Your task to perform on an android device: turn off notifications settings in the gmail app Image 0: 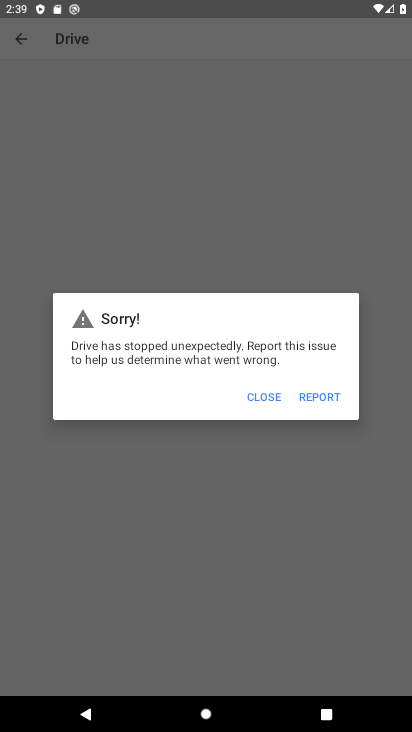
Step 0: press home button
Your task to perform on an android device: turn off notifications settings in the gmail app Image 1: 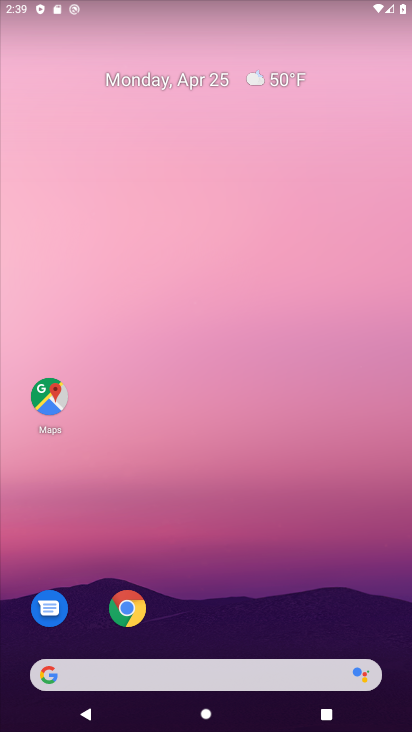
Step 1: drag from (206, 523) to (245, 203)
Your task to perform on an android device: turn off notifications settings in the gmail app Image 2: 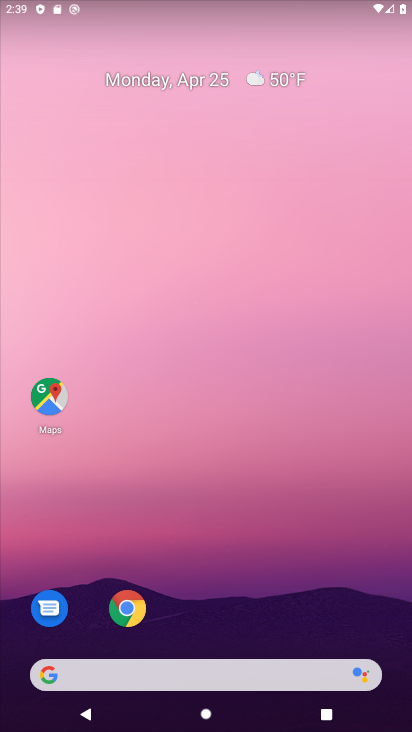
Step 2: drag from (190, 638) to (213, 159)
Your task to perform on an android device: turn off notifications settings in the gmail app Image 3: 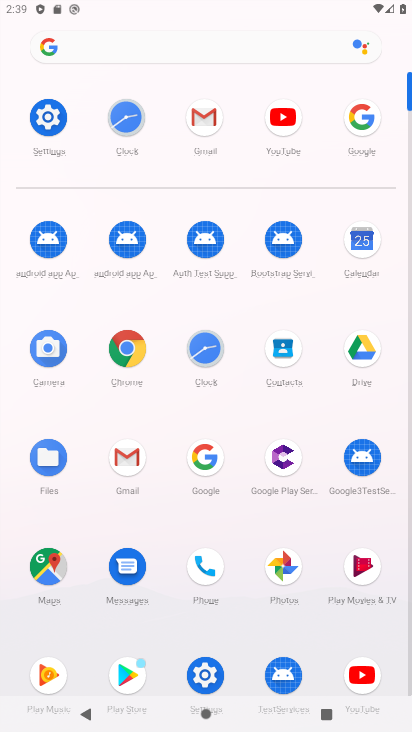
Step 3: click (217, 123)
Your task to perform on an android device: turn off notifications settings in the gmail app Image 4: 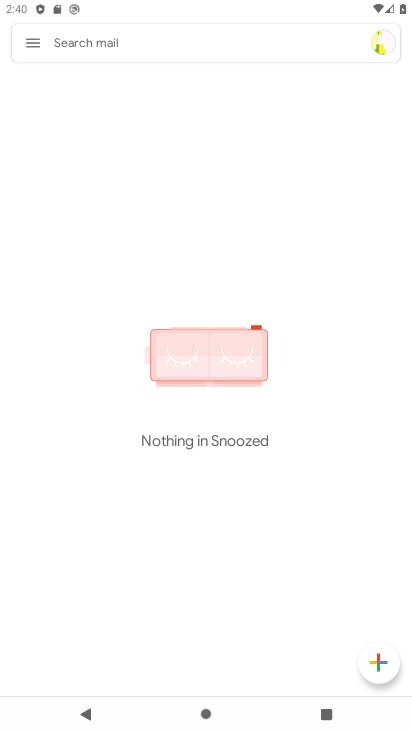
Step 4: click (27, 42)
Your task to perform on an android device: turn off notifications settings in the gmail app Image 5: 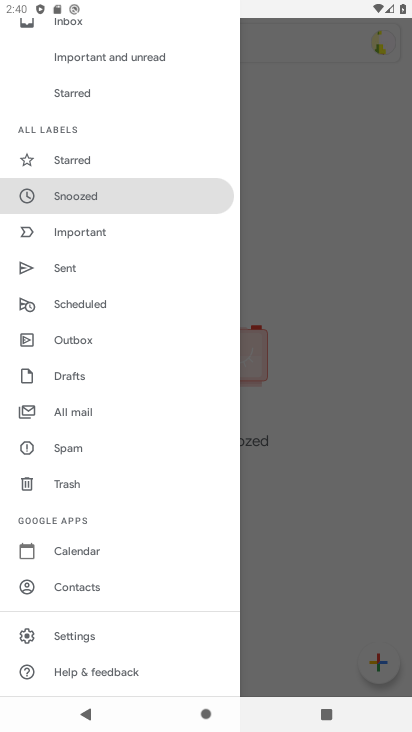
Step 5: click (105, 635)
Your task to perform on an android device: turn off notifications settings in the gmail app Image 6: 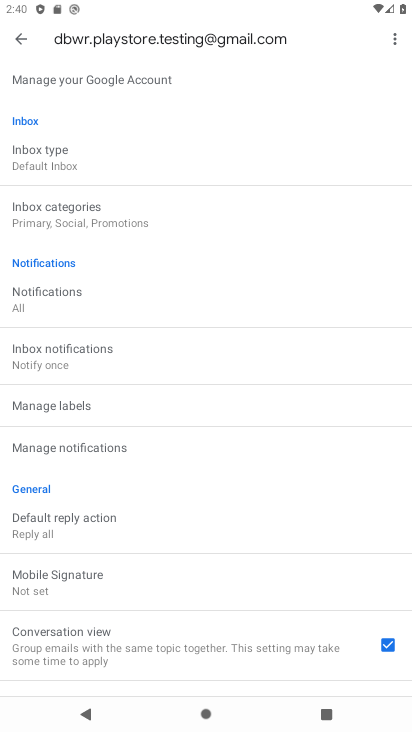
Step 6: click (79, 450)
Your task to perform on an android device: turn off notifications settings in the gmail app Image 7: 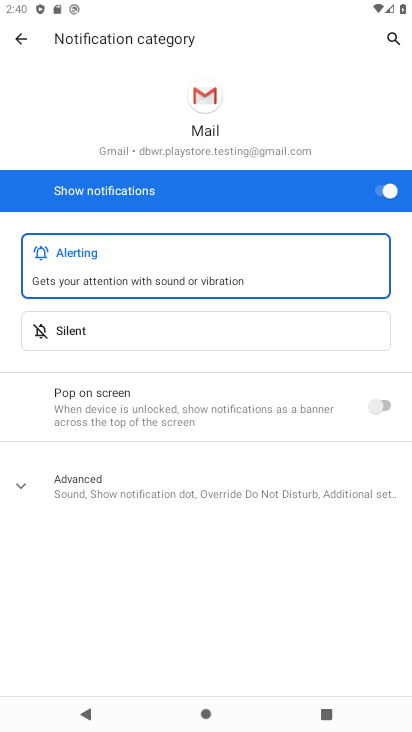
Step 7: click (371, 192)
Your task to perform on an android device: turn off notifications settings in the gmail app Image 8: 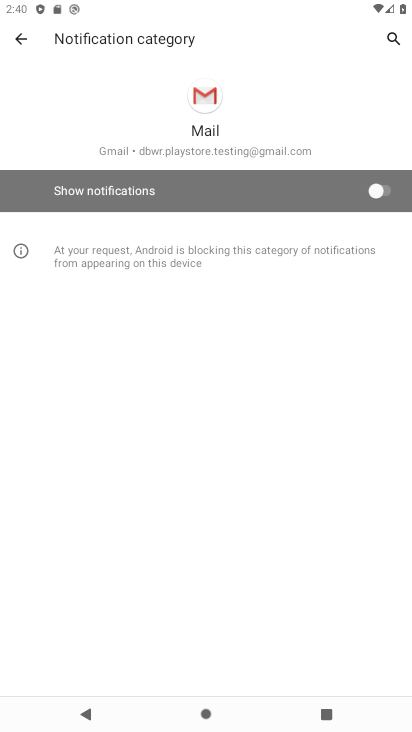
Step 8: task complete